Your task to perform on an android device: stop showing notifications on the lock screen Image 0: 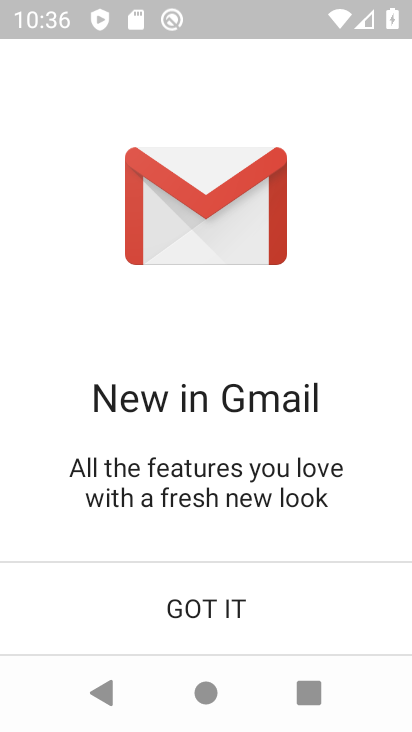
Step 0: press home button
Your task to perform on an android device: stop showing notifications on the lock screen Image 1: 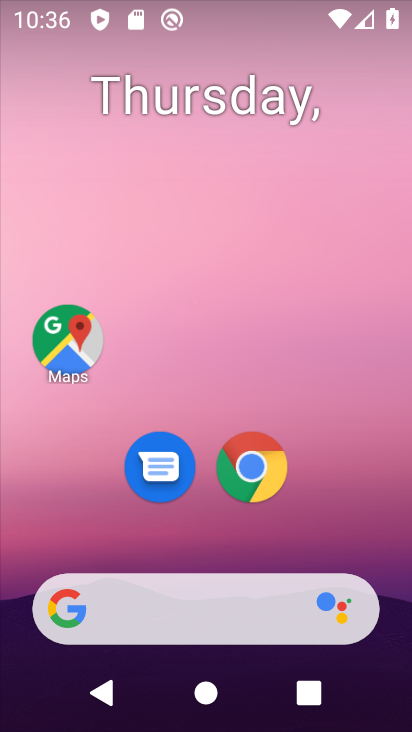
Step 1: drag from (170, 550) to (223, 203)
Your task to perform on an android device: stop showing notifications on the lock screen Image 2: 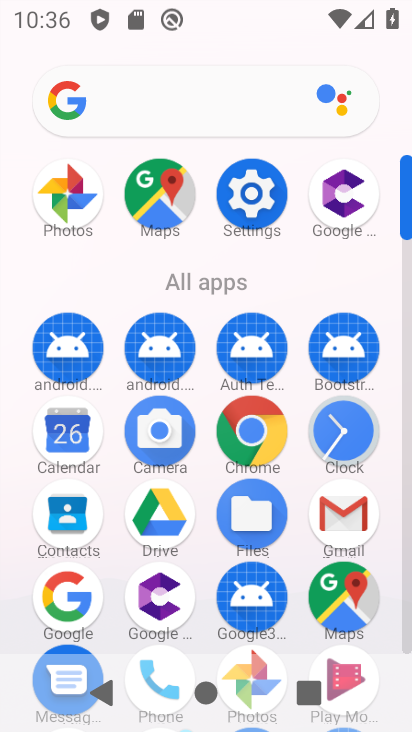
Step 2: click (250, 192)
Your task to perform on an android device: stop showing notifications on the lock screen Image 3: 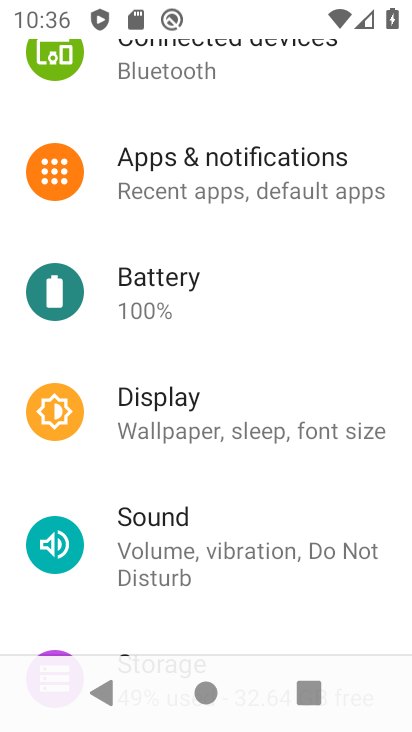
Step 3: click (266, 180)
Your task to perform on an android device: stop showing notifications on the lock screen Image 4: 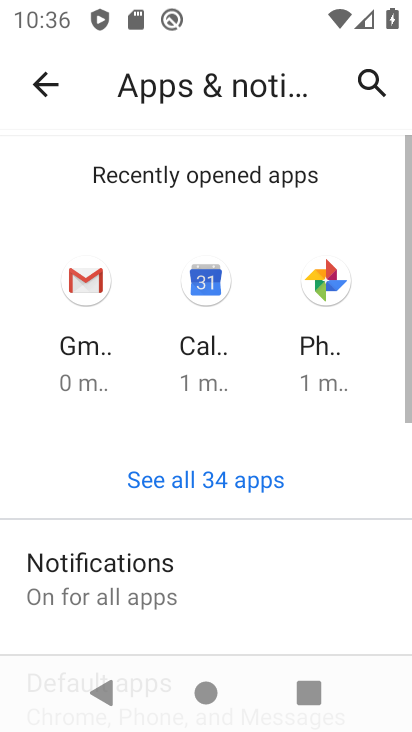
Step 4: click (168, 562)
Your task to perform on an android device: stop showing notifications on the lock screen Image 5: 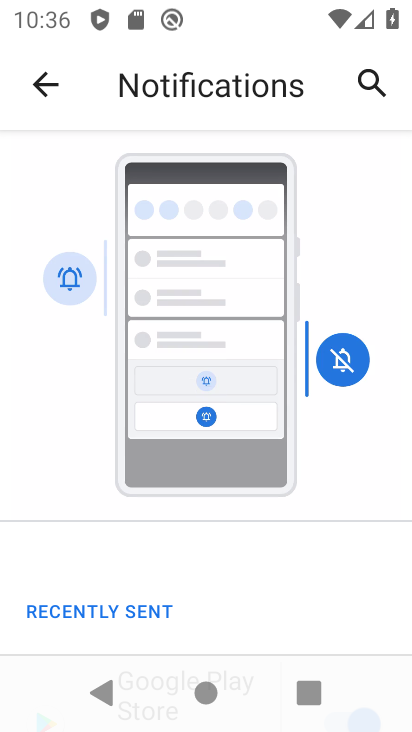
Step 5: drag from (191, 561) to (347, 190)
Your task to perform on an android device: stop showing notifications on the lock screen Image 6: 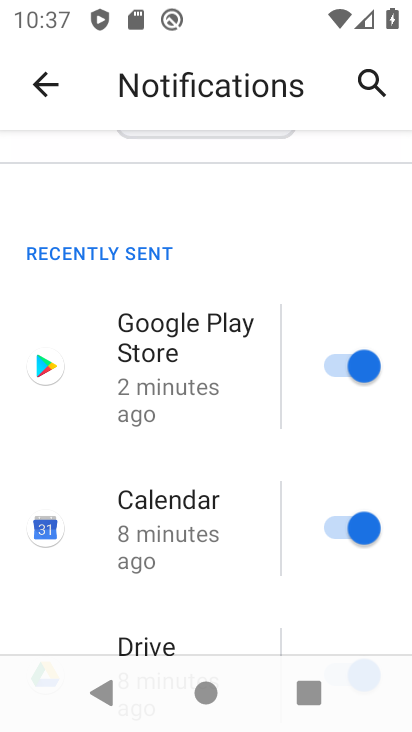
Step 6: drag from (238, 569) to (385, 208)
Your task to perform on an android device: stop showing notifications on the lock screen Image 7: 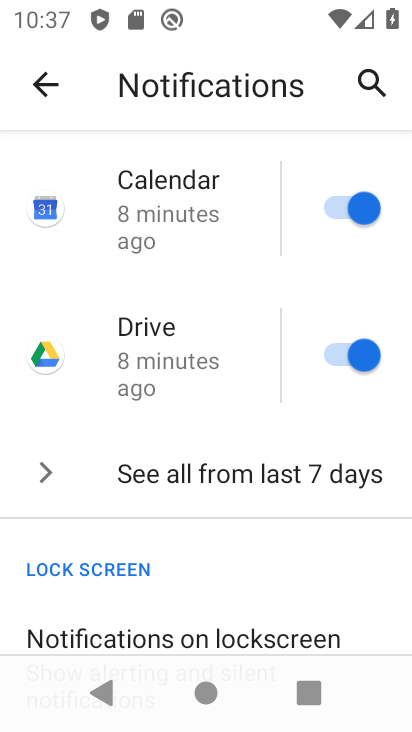
Step 7: click (185, 636)
Your task to perform on an android device: stop showing notifications on the lock screen Image 8: 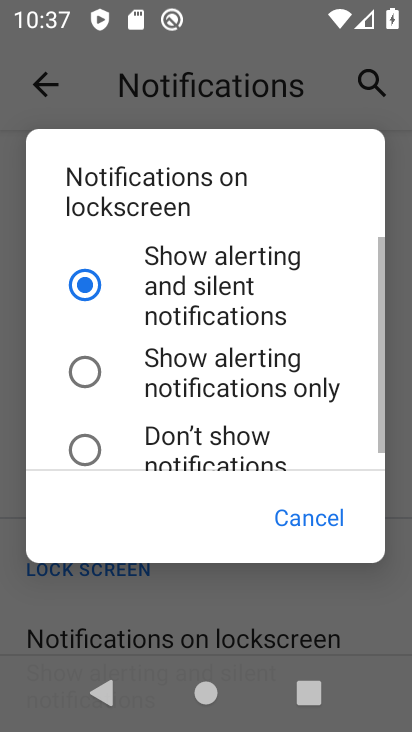
Step 8: click (220, 440)
Your task to perform on an android device: stop showing notifications on the lock screen Image 9: 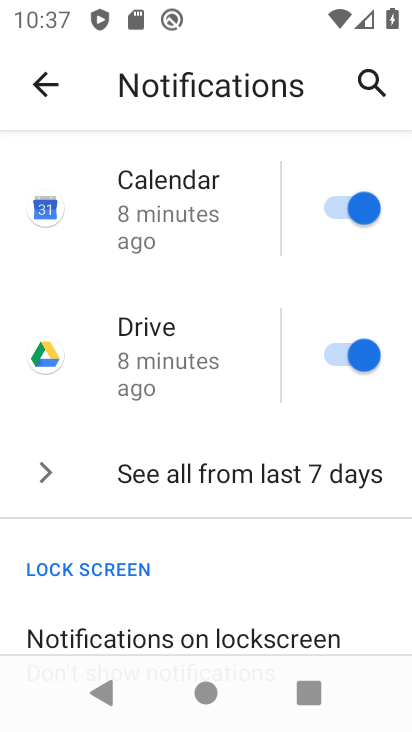
Step 9: task complete